Your task to perform on an android device: Show me productivity apps on the Play Store Image 0: 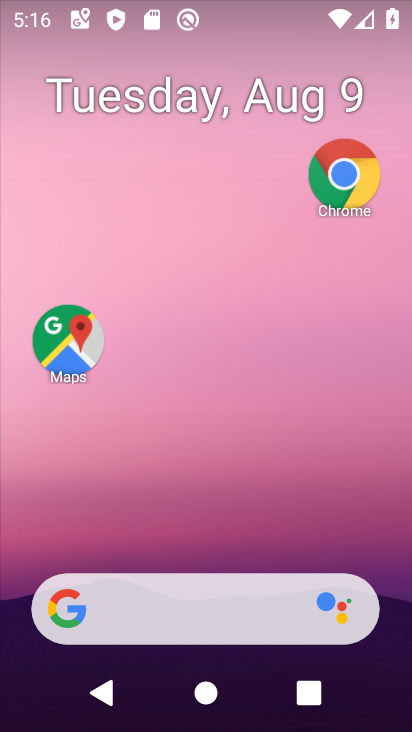
Step 0: drag from (208, 508) to (236, 17)
Your task to perform on an android device: Show me productivity apps on the Play Store Image 1: 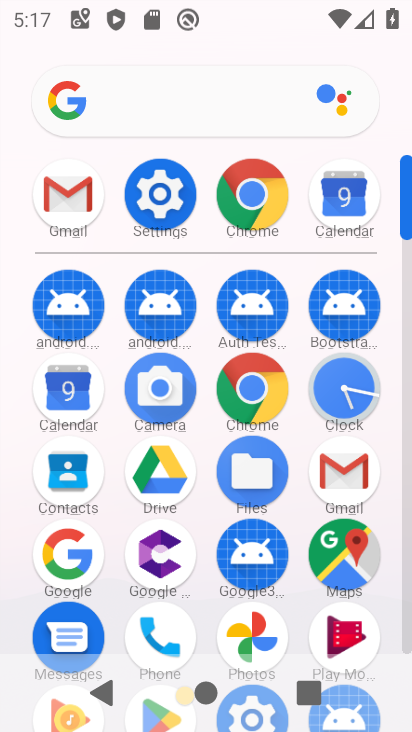
Step 1: drag from (200, 630) to (193, 299)
Your task to perform on an android device: Show me productivity apps on the Play Store Image 2: 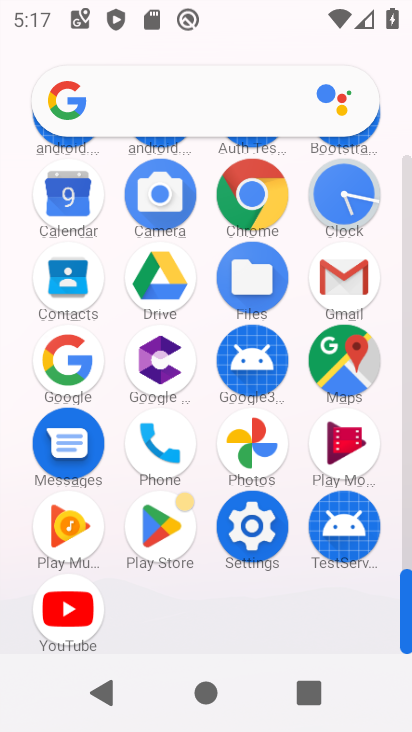
Step 2: click (174, 502)
Your task to perform on an android device: Show me productivity apps on the Play Store Image 3: 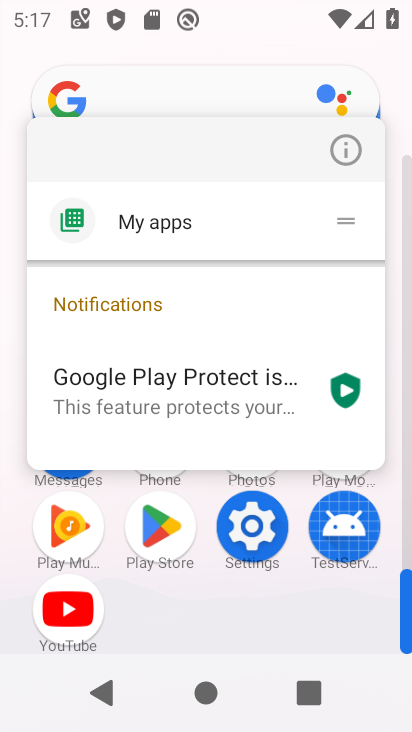
Step 3: click (342, 138)
Your task to perform on an android device: Show me productivity apps on the Play Store Image 4: 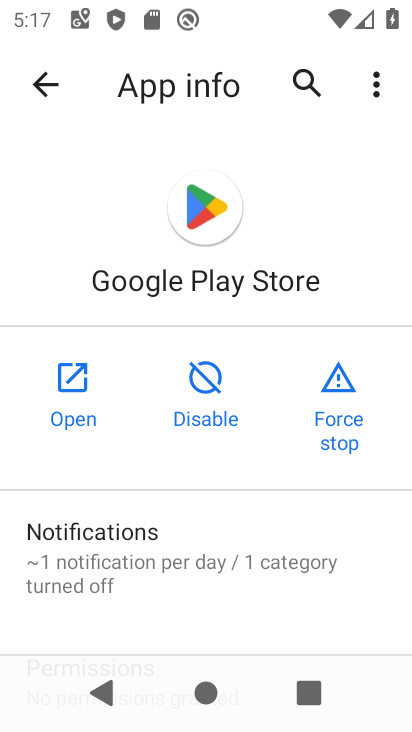
Step 4: click (71, 385)
Your task to perform on an android device: Show me productivity apps on the Play Store Image 5: 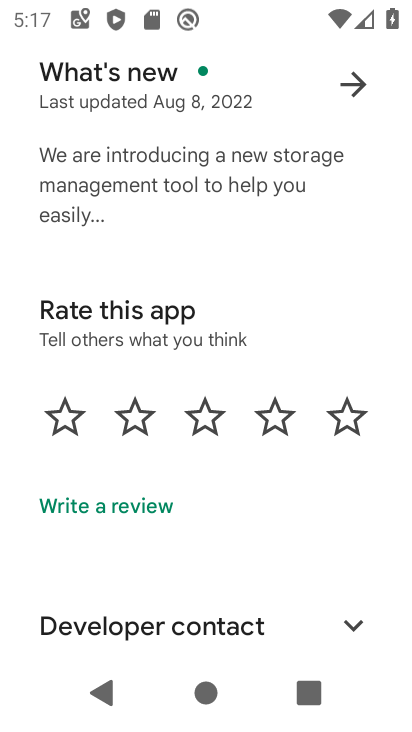
Step 5: drag from (268, 552) to (345, 211)
Your task to perform on an android device: Show me productivity apps on the Play Store Image 6: 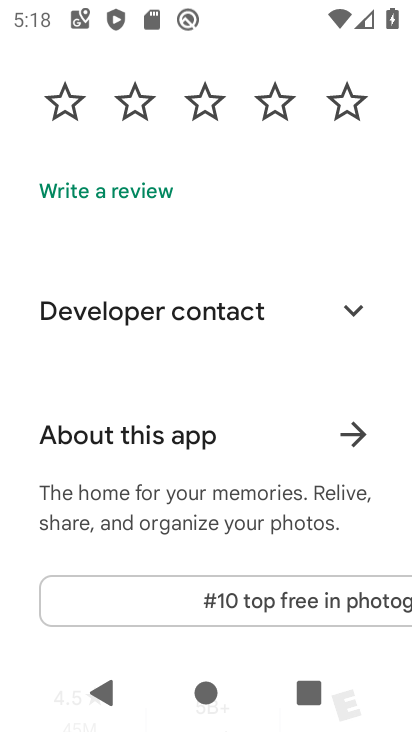
Step 6: drag from (303, 229) to (358, 136)
Your task to perform on an android device: Show me productivity apps on the Play Store Image 7: 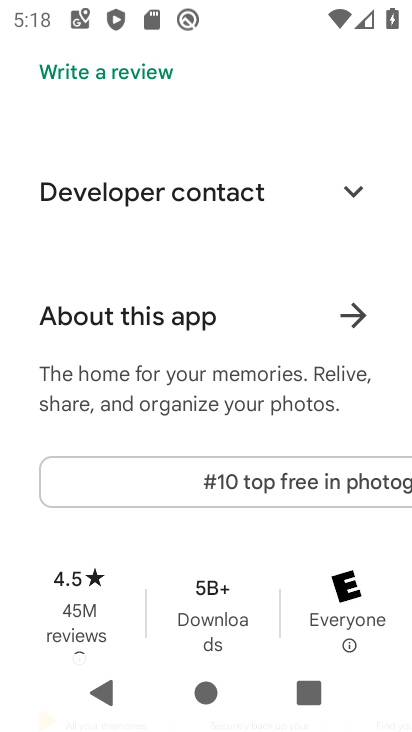
Step 7: drag from (233, 215) to (318, 690)
Your task to perform on an android device: Show me productivity apps on the Play Store Image 8: 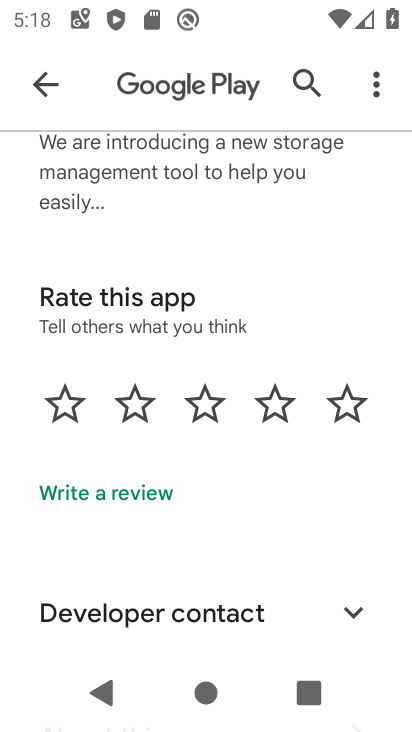
Step 8: drag from (267, 598) to (242, 161)
Your task to perform on an android device: Show me productivity apps on the Play Store Image 9: 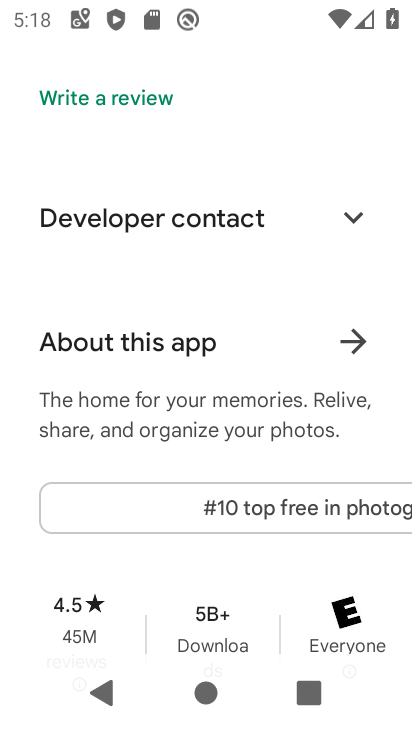
Step 9: drag from (227, 170) to (249, 695)
Your task to perform on an android device: Show me productivity apps on the Play Store Image 10: 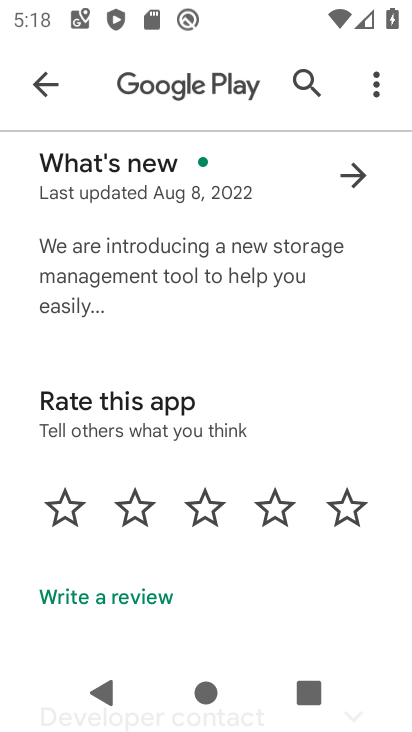
Step 10: drag from (162, 216) to (181, 544)
Your task to perform on an android device: Show me productivity apps on the Play Store Image 11: 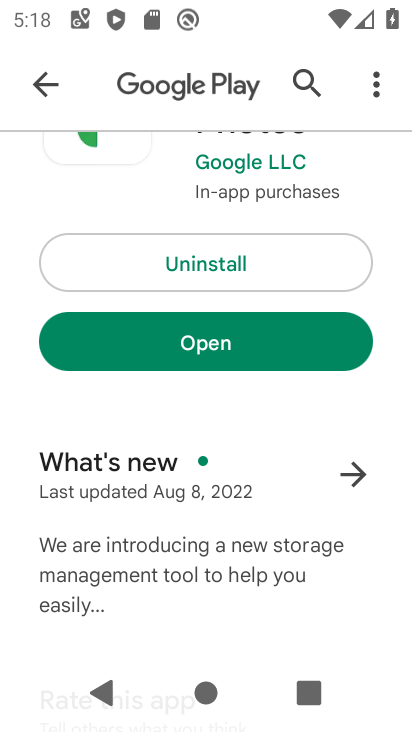
Step 11: drag from (174, 154) to (268, 600)
Your task to perform on an android device: Show me productivity apps on the Play Store Image 12: 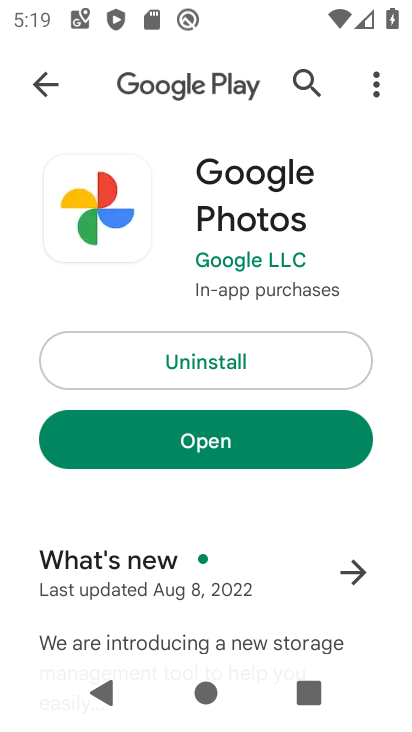
Step 12: click (46, 73)
Your task to perform on an android device: Show me productivity apps on the Play Store Image 13: 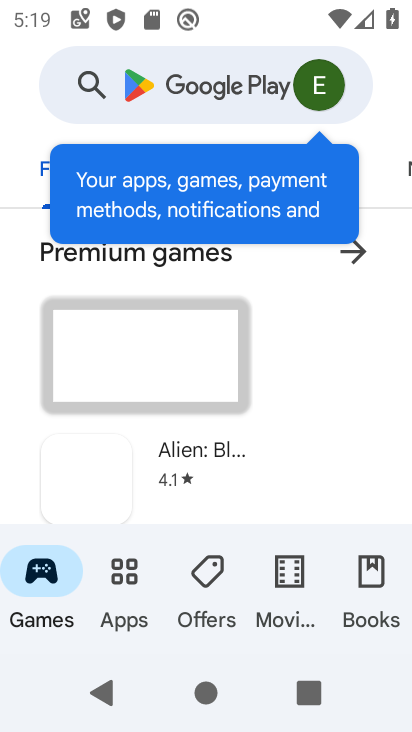
Step 13: task complete